Your task to perform on an android device: open a bookmark in the chrome app Image 0: 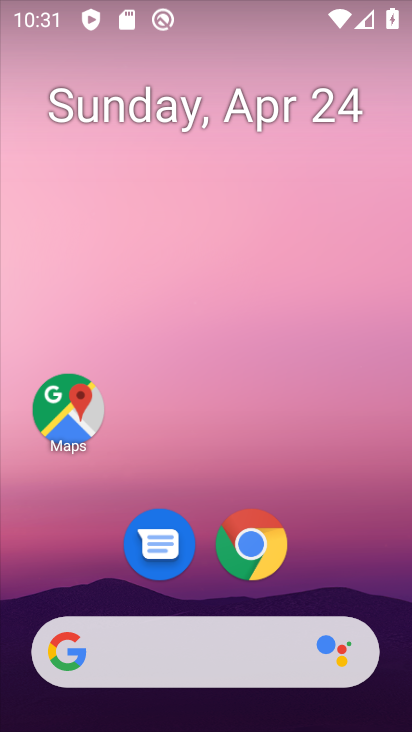
Step 0: click (261, 555)
Your task to perform on an android device: open a bookmark in the chrome app Image 1: 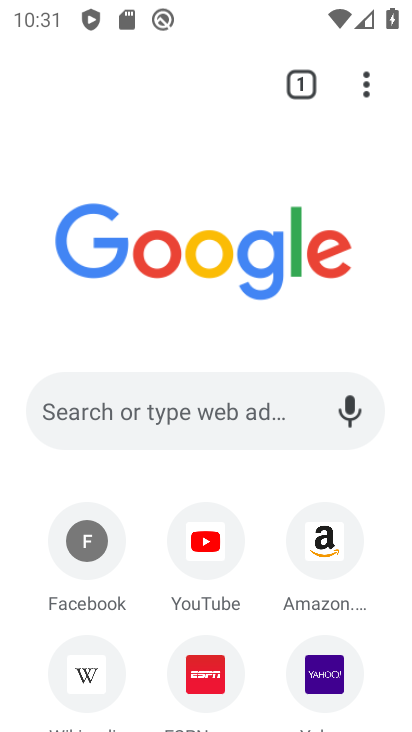
Step 1: task complete